Your task to perform on an android device: Search for seafood restaurants on Google Maps Image 0: 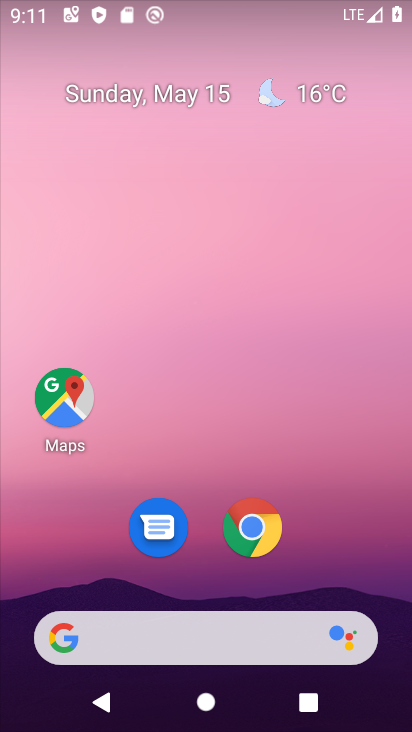
Step 0: click (59, 402)
Your task to perform on an android device: Search for seafood restaurants on Google Maps Image 1: 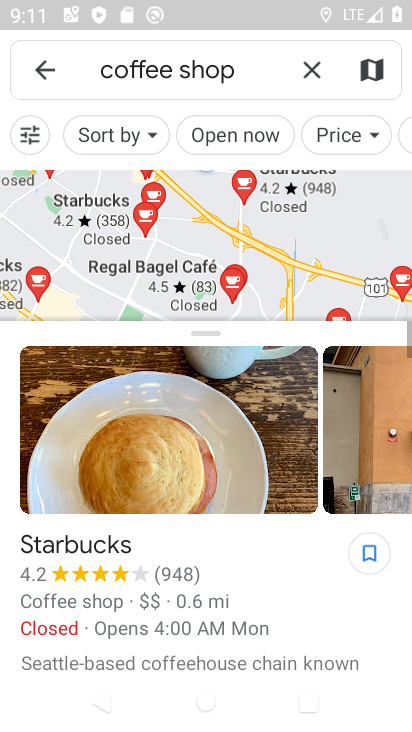
Step 1: click (315, 72)
Your task to perform on an android device: Search for seafood restaurants on Google Maps Image 2: 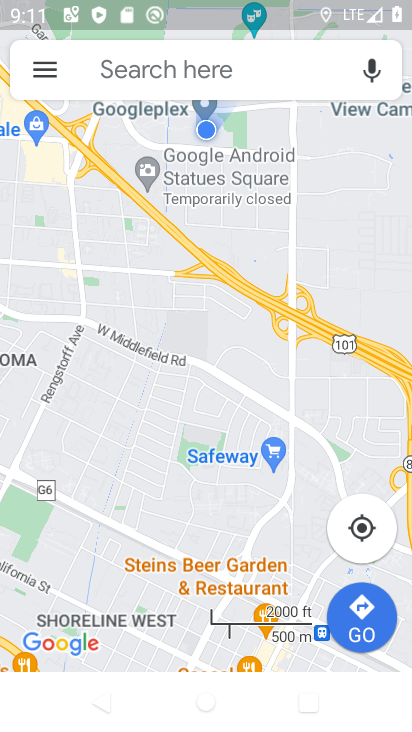
Step 2: click (113, 68)
Your task to perform on an android device: Search for seafood restaurants on Google Maps Image 3: 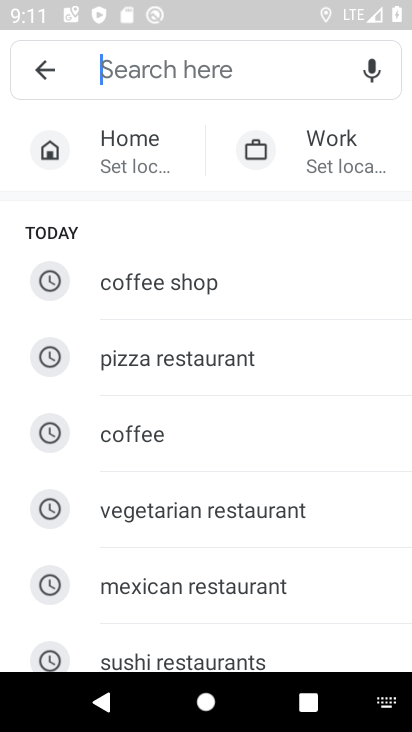
Step 3: type "seafood restaurant"
Your task to perform on an android device: Search for seafood restaurants on Google Maps Image 4: 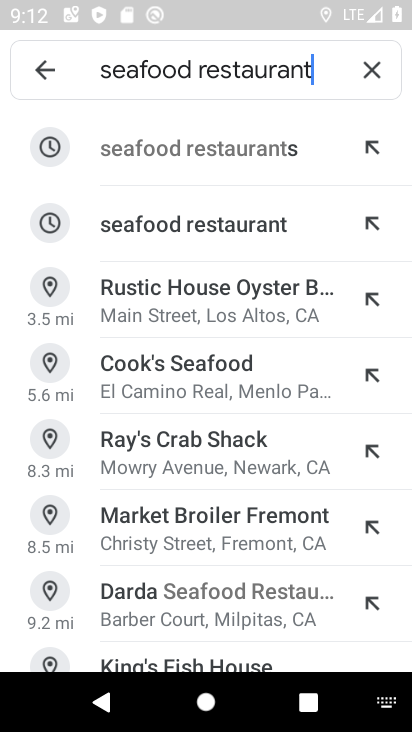
Step 4: click (163, 157)
Your task to perform on an android device: Search for seafood restaurants on Google Maps Image 5: 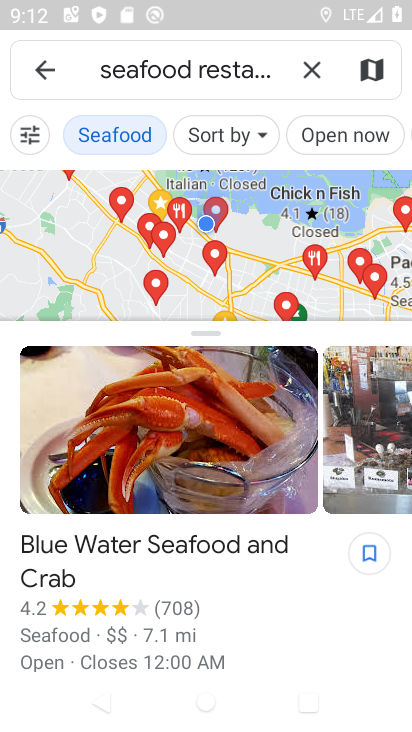
Step 5: task complete